Your task to perform on an android device: toggle improve location accuracy Image 0: 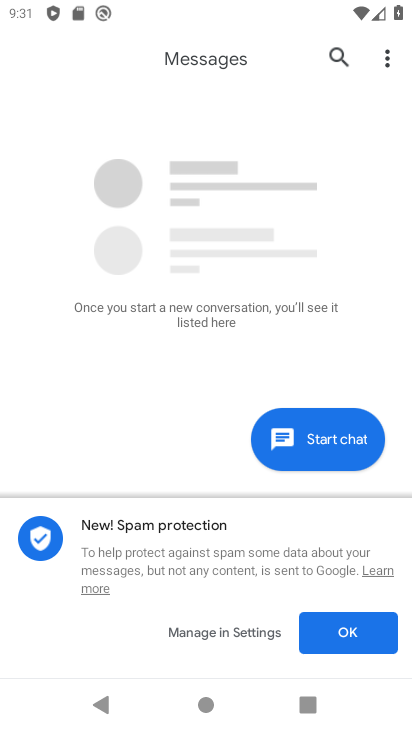
Step 0: press home button
Your task to perform on an android device: toggle improve location accuracy Image 1: 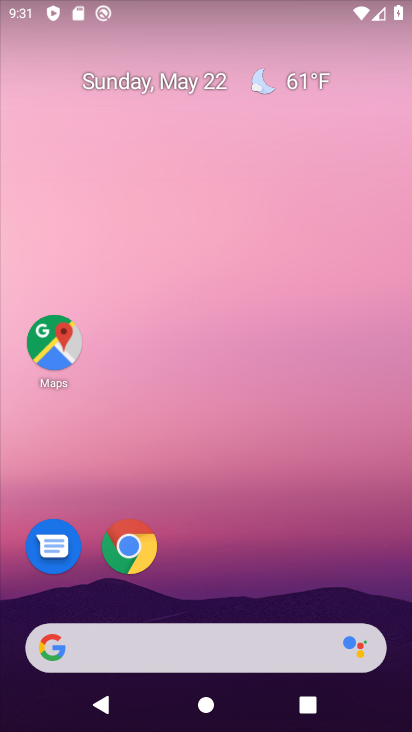
Step 1: drag from (206, 634) to (224, 101)
Your task to perform on an android device: toggle improve location accuracy Image 2: 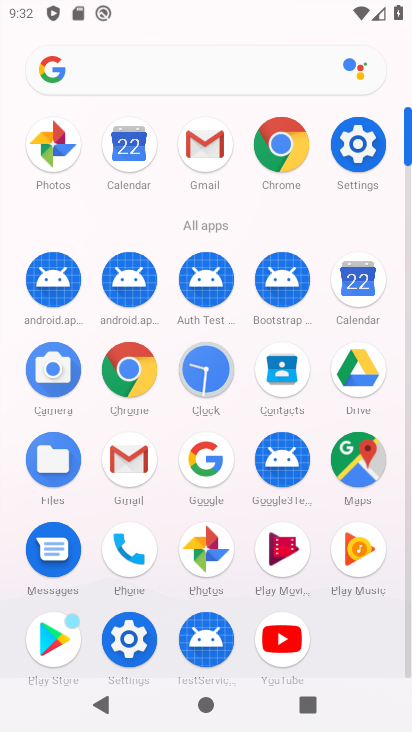
Step 2: click (367, 161)
Your task to perform on an android device: toggle improve location accuracy Image 3: 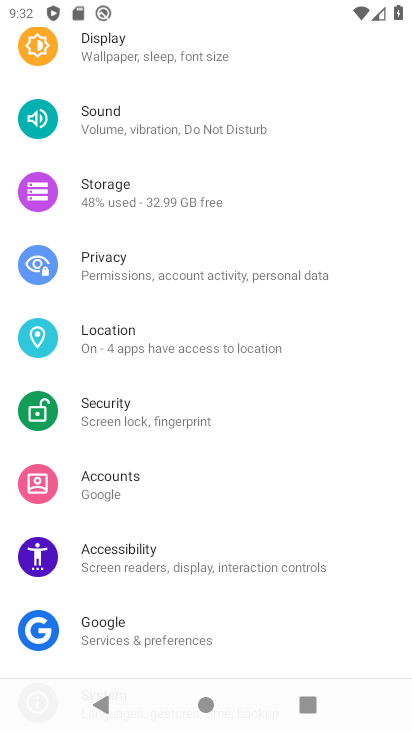
Step 3: click (105, 330)
Your task to perform on an android device: toggle improve location accuracy Image 4: 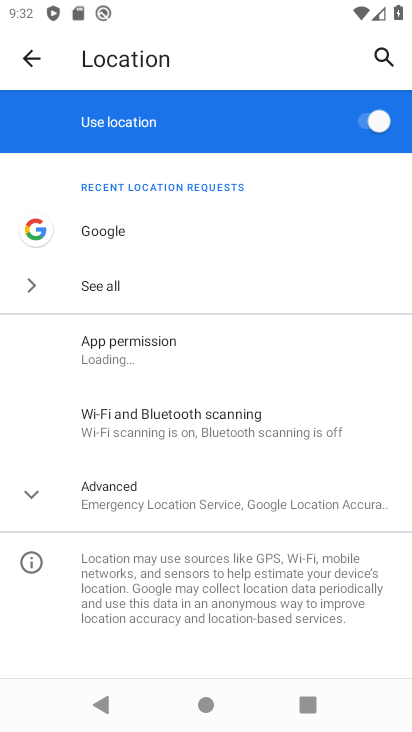
Step 4: click (167, 494)
Your task to perform on an android device: toggle improve location accuracy Image 5: 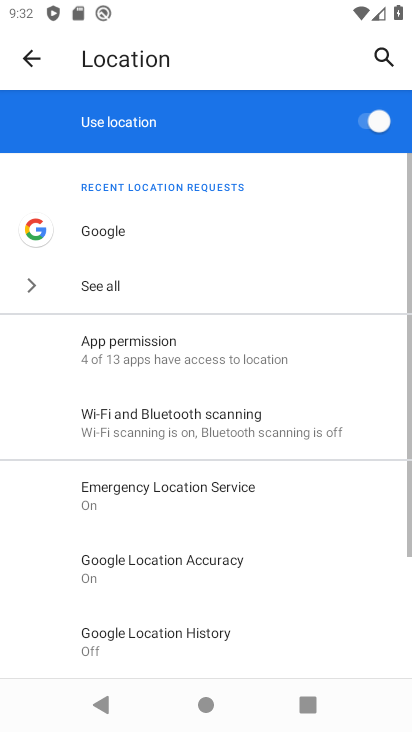
Step 5: click (165, 572)
Your task to perform on an android device: toggle improve location accuracy Image 6: 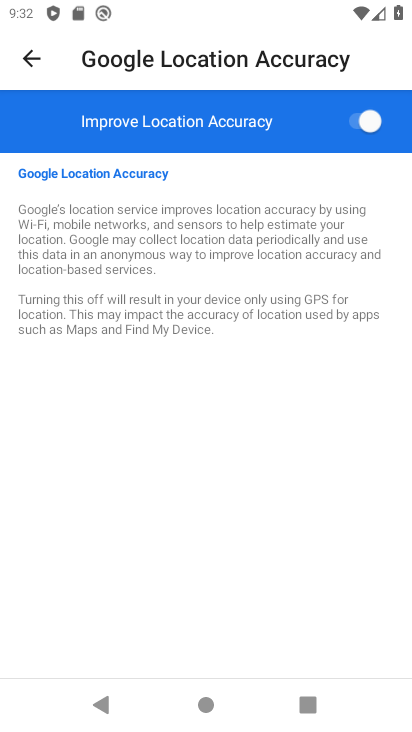
Step 6: click (367, 132)
Your task to perform on an android device: toggle improve location accuracy Image 7: 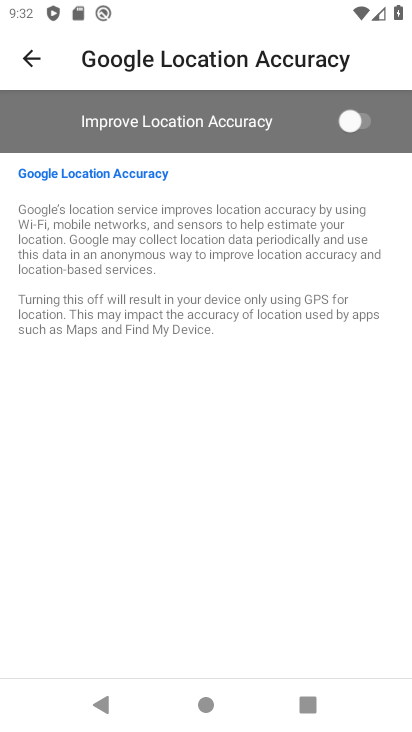
Step 7: task complete